Your task to perform on an android device: What's the weather? Image 0: 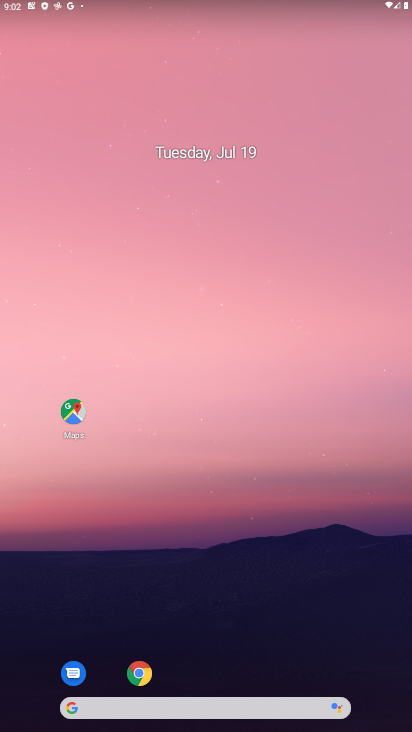
Step 0: click (205, 713)
Your task to perform on an android device: What's the weather? Image 1: 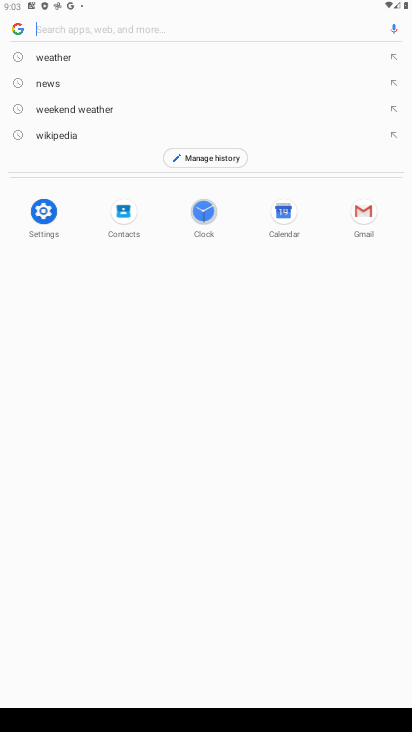
Step 1: click (74, 51)
Your task to perform on an android device: What's the weather? Image 2: 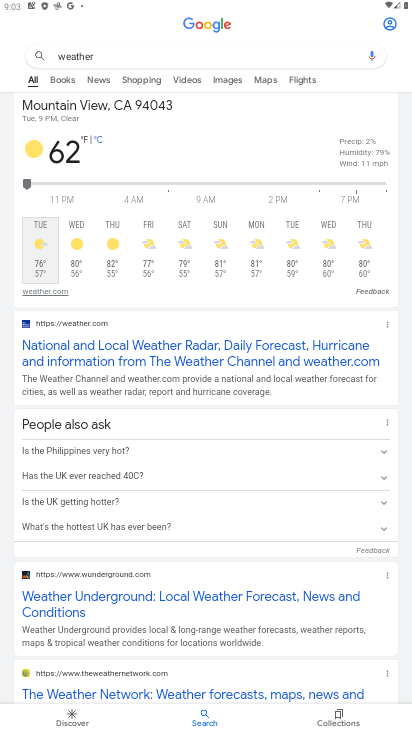
Step 2: task complete